Your task to perform on an android device: Do I have any events this weekend? Image 0: 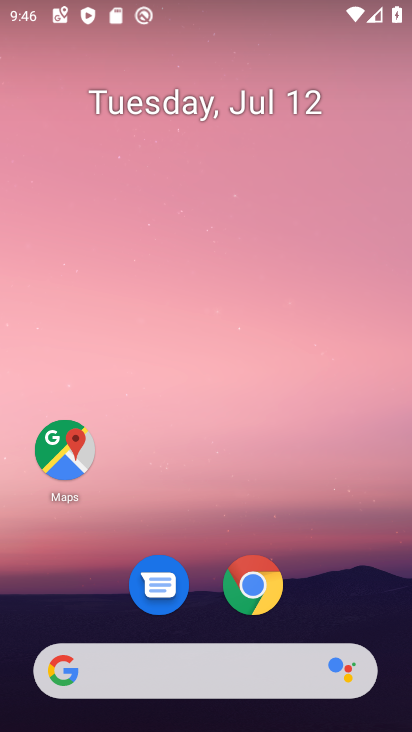
Step 0: drag from (146, 663) to (248, 84)
Your task to perform on an android device: Do I have any events this weekend? Image 1: 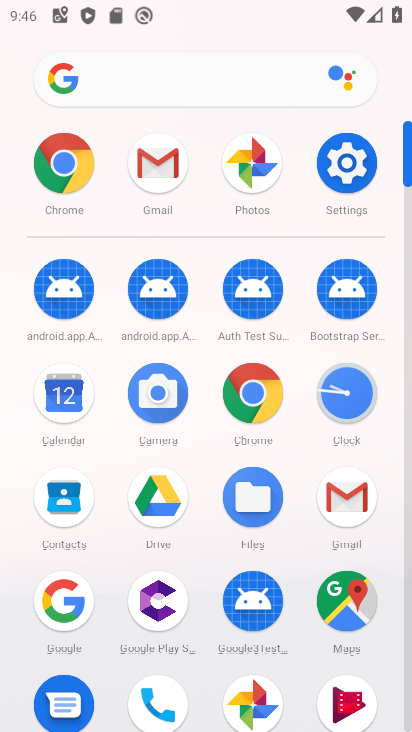
Step 1: click (61, 397)
Your task to perform on an android device: Do I have any events this weekend? Image 2: 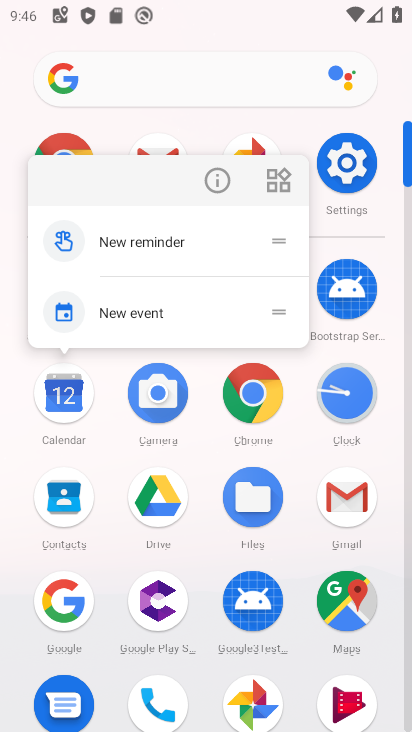
Step 2: click (66, 405)
Your task to perform on an android device: Do I have any events this weekend? Image 3: 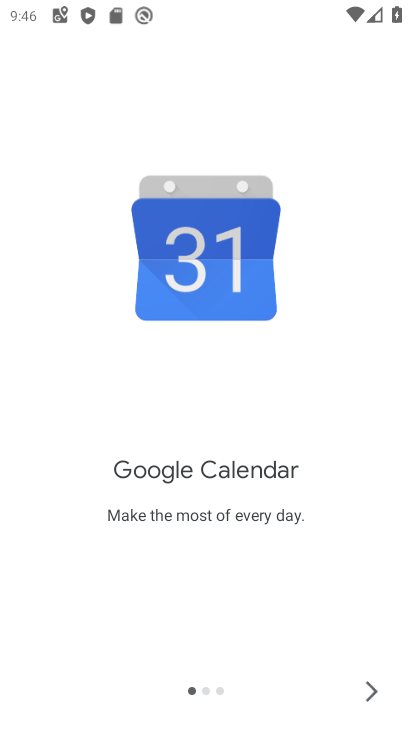
Step 3: click (369, 697)
Your task to perform on an android device: Do I have any events this weekend? Image 4: 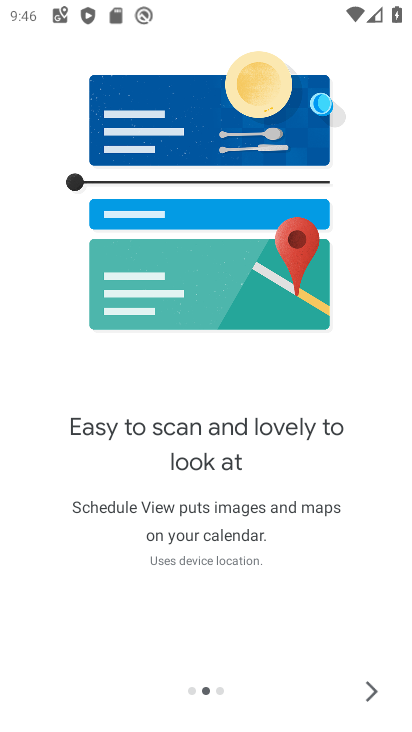
Step 4: click (369, 696)
Your task to perform on an android device: Do I have any events this weekend? Image 5: 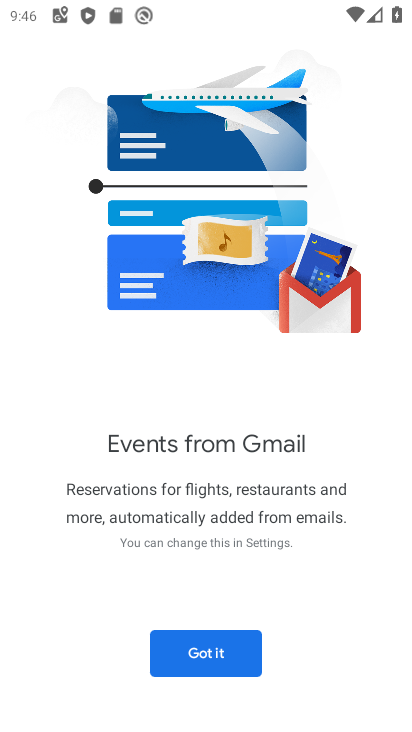
Step 5: click (210, 653)
Your task to perform on an android device: Do I have any events this weekend? Image 6: 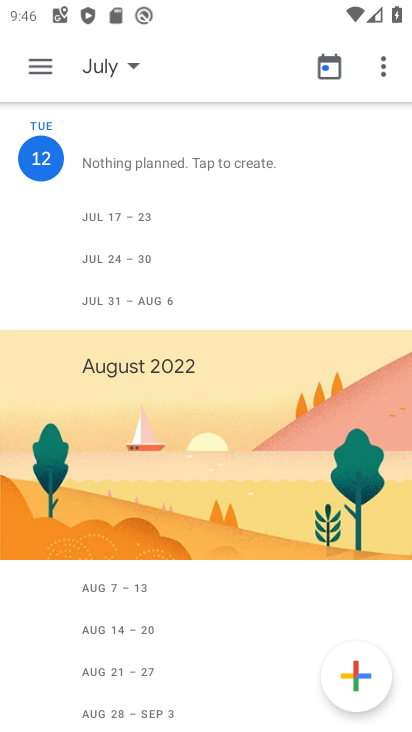
Step 6: click (107, 69)
Your task to perform on an android device: Do I have any events this weekend? Image 7: 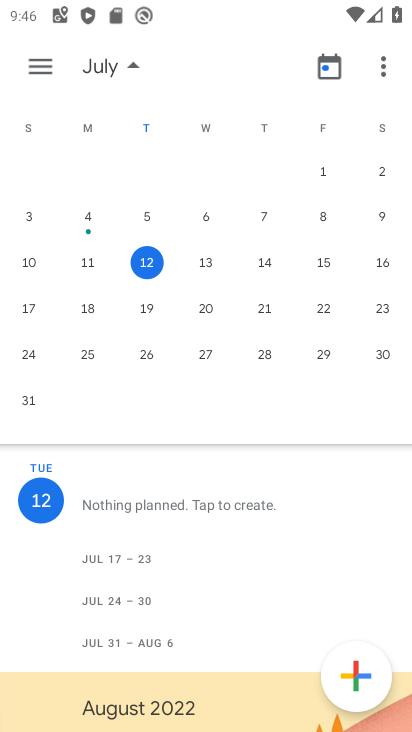
Step 7: click (380, 262)
Your task to perform on an android device: Do I have any events this weekend? Image 8: 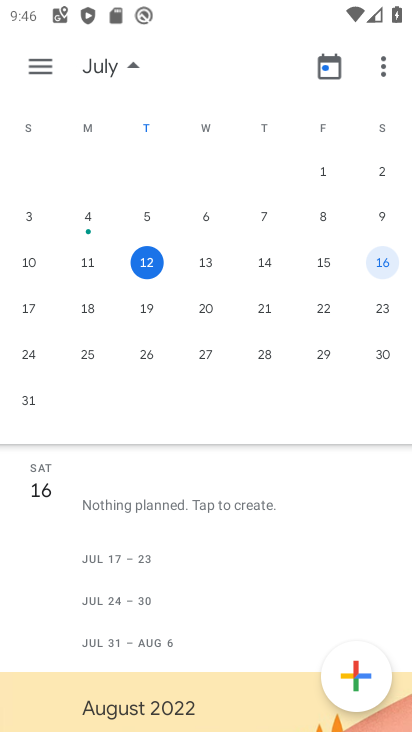
Step 8: click (39, 74)
Your task to perform on an android device: Do I have any events this weekend? Image 9: 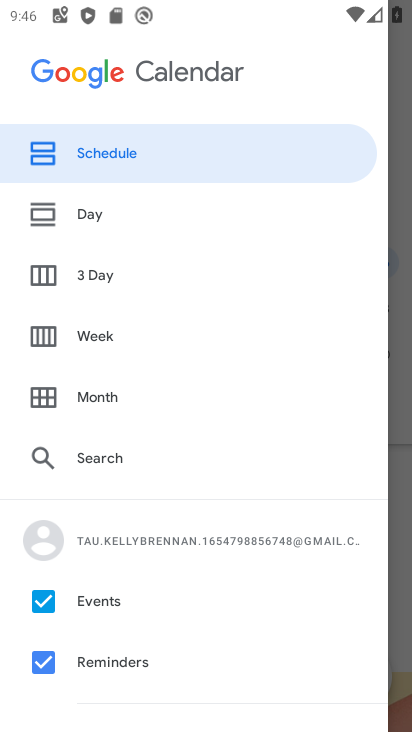
Step 9: click (89, 222)
Your task to perform on an android device: Do I have any events this weekend? Image 10: 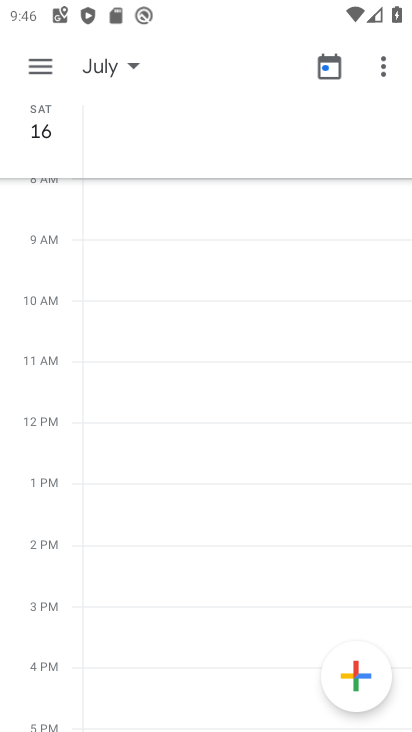
Step 10: click (29, 60)
Your task to perform on an android device: Do I have any events this weekend? Image 11: 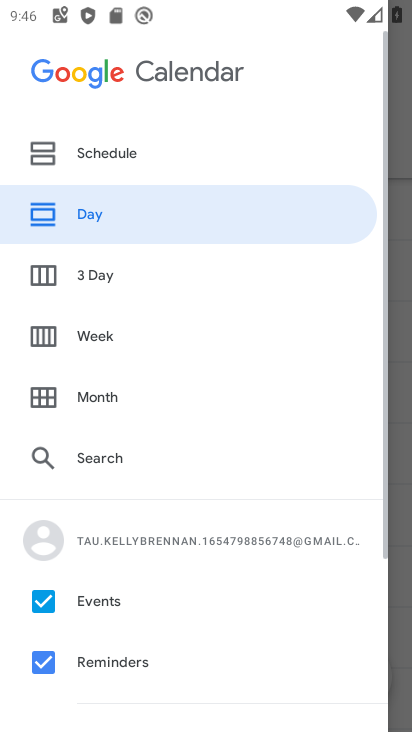
Step 11: click (100, 157)
Your task to perform on an android device: Do I have any events this weekend? Image 12: 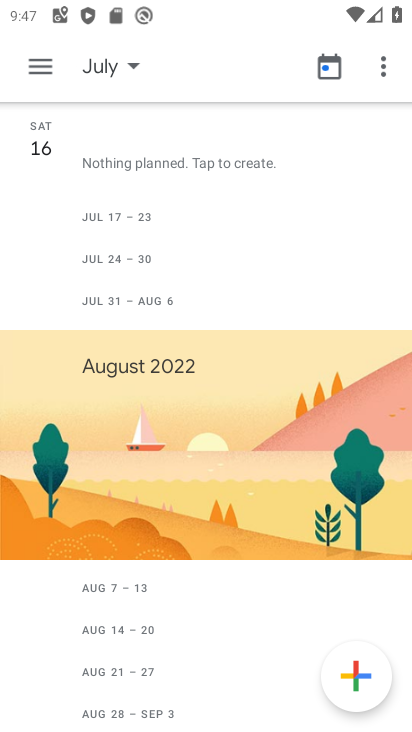
Step 12: task complete